Your task to perform on an android device: set the timer Image 0: 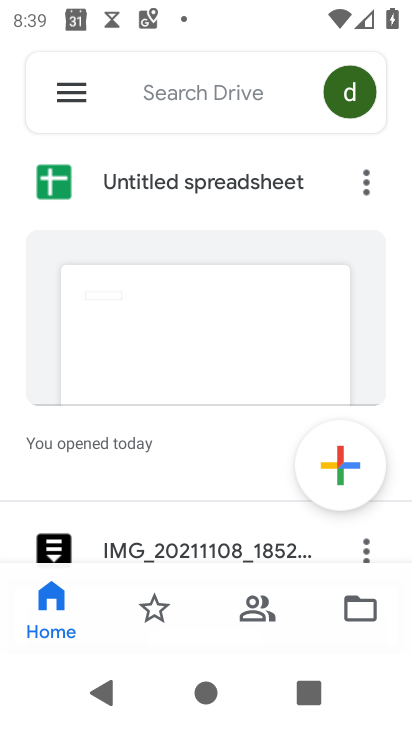
Step 0: press home button
Your task to perform on an android device: set the timer Image 1: 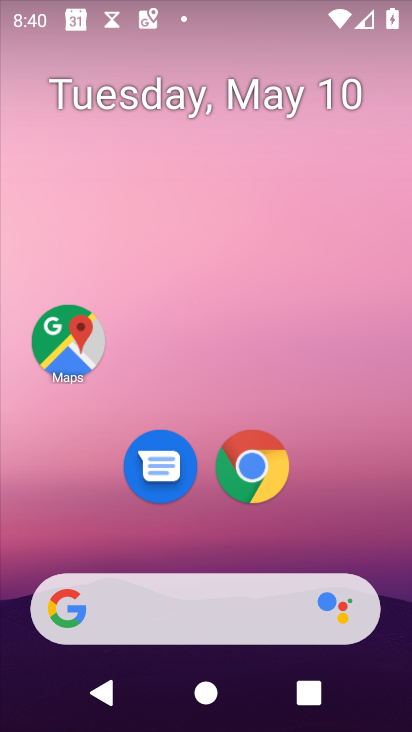
Step 1: drag from (254, 539) to (288, 58)
Your task to perform on an android device: set the timer Image 2: 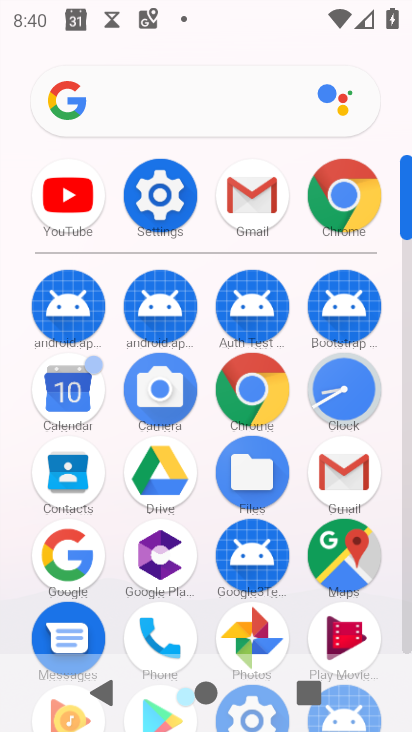
Step 2: click (325, 392)
Your task to perform on an android device: set the timer Image 3: 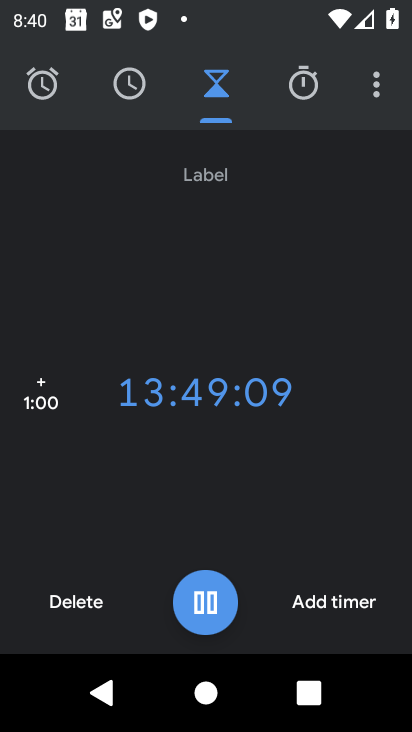
Step 3: click (324, 597)
Your task to perform on an android device: set the timer Image 4: 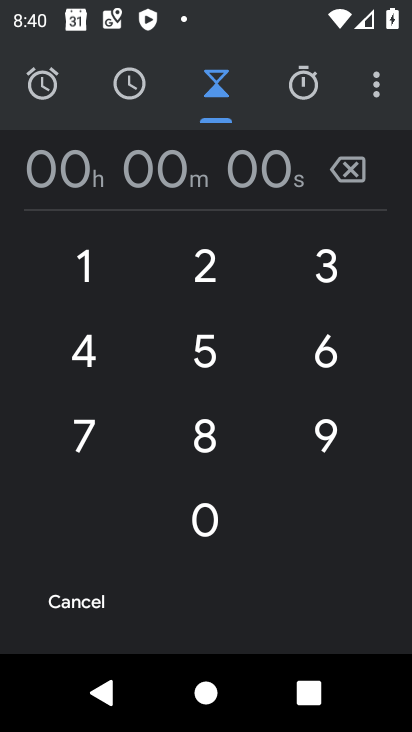
Step 4: click (203, 520)
Your task to perform on an android device: set the timer Image 5: 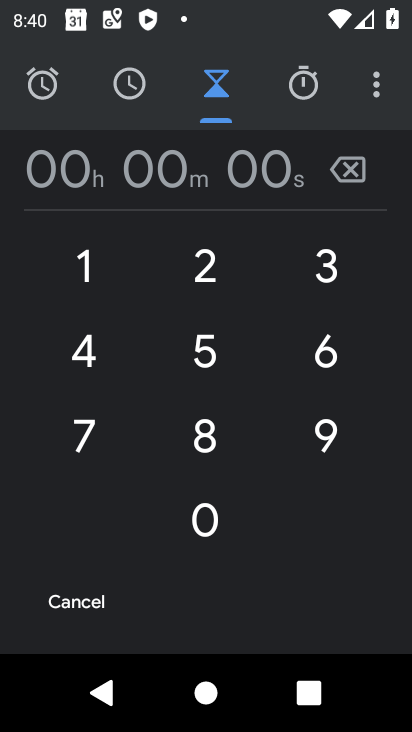
Step 5: click (192, 258)
Your task to perform on an android device: set the timer Image 6: 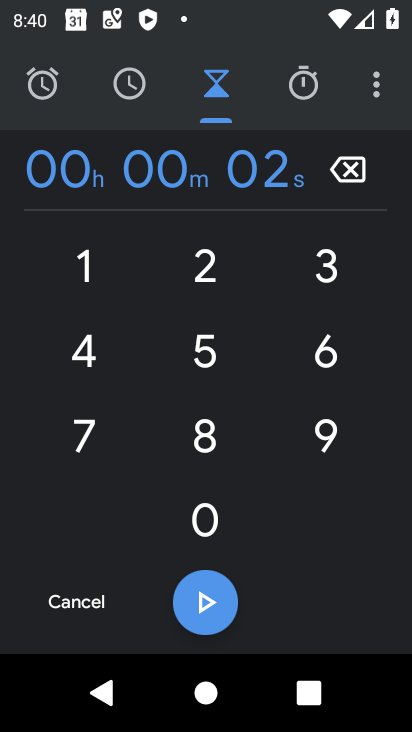
Step 6: click (74, 363)
Your task to perform on an android device: set the timer Image 7: 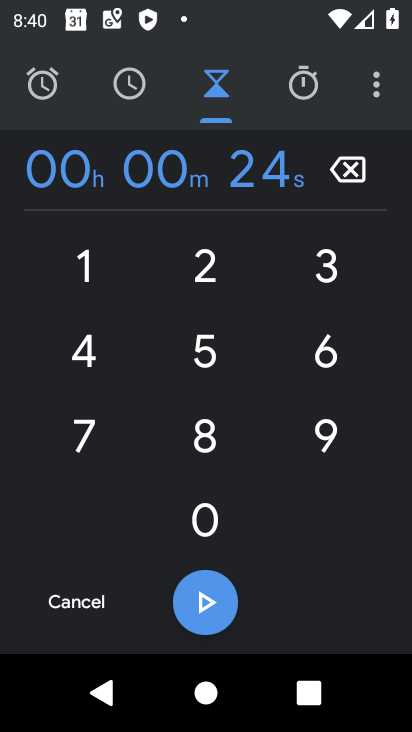
Step 7: click (333, 358)
Your task to perform on an android device: set the timer Image 8: 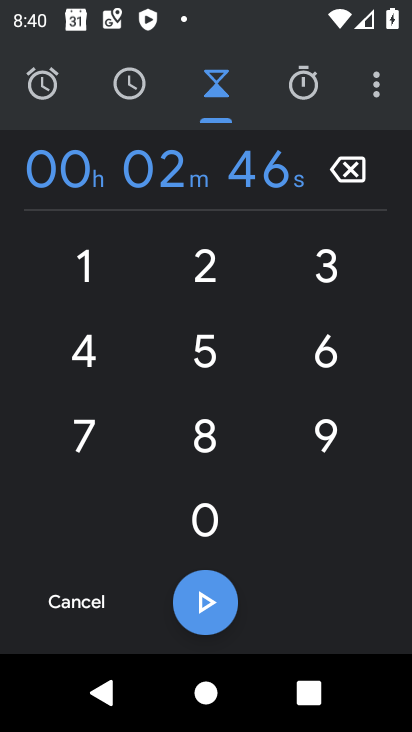
Step 8: click (94, 260)
Your task to perform on an android device: set the timer Image 9: 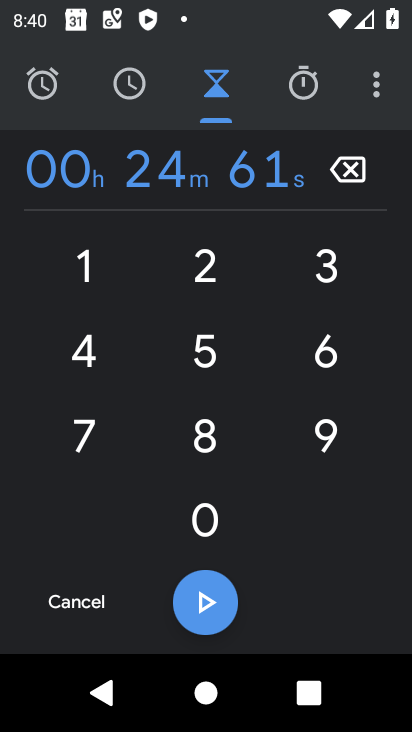
Step 9: click (332, 432)
Your task to perform on an android device: set the timer Image 10: 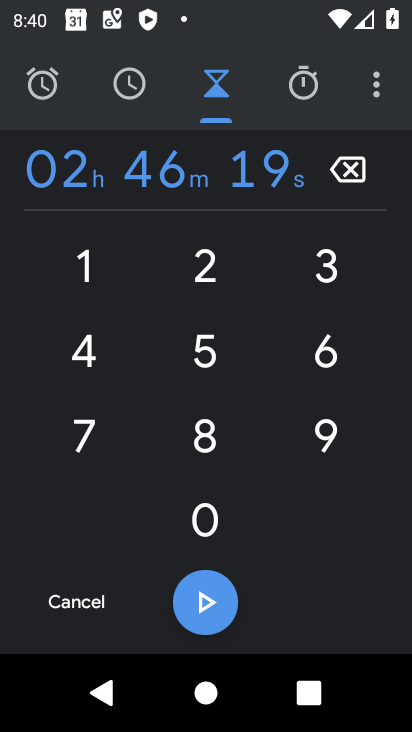
Step 10: click (317, 264)
Your task to perform on an android device: set the timer Image 11: 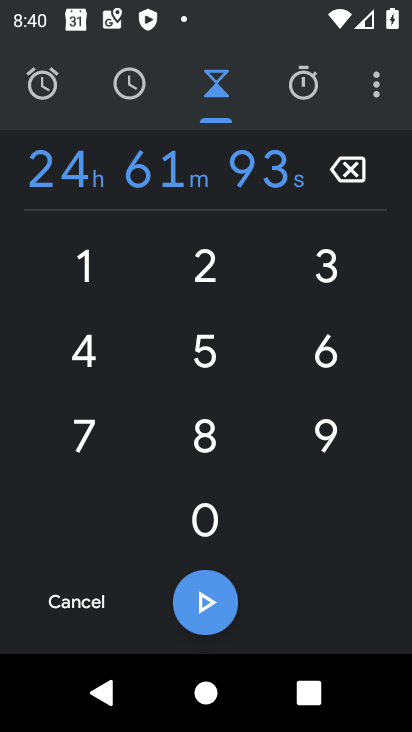
Step 11: click (222, 616)
Your task to perform on an android device: set the timer Image 12: 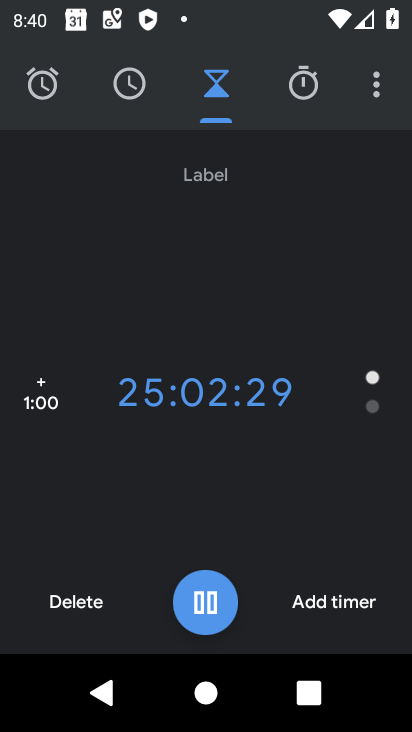
Step 12: task complete